Your task to perform on an android device: open app "Google Docs" (install if not already installed) Image 0: 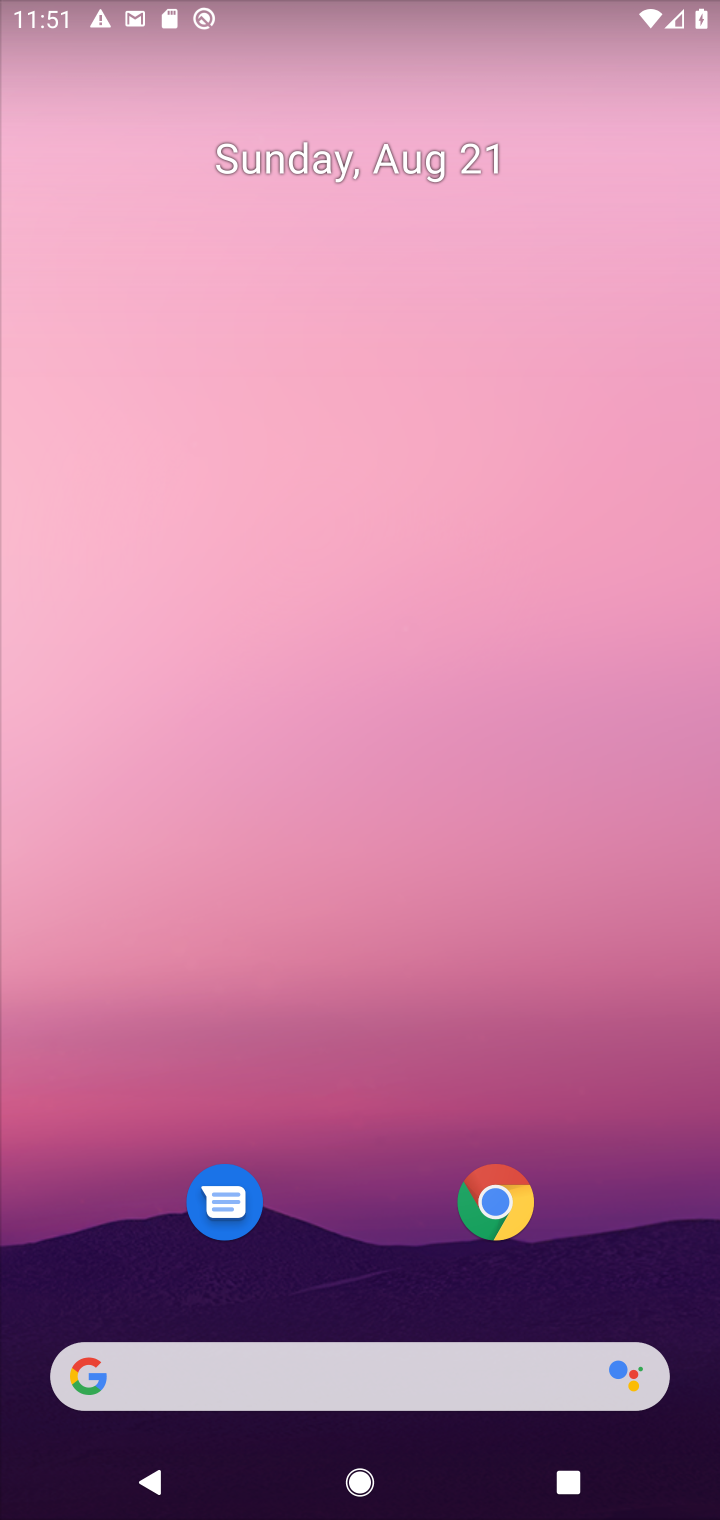
Step 0: drag from (403, 1316) to (364, 78)
Your task to perform on an android device: open app "Google Docs" (install if not already installed) Image 1: 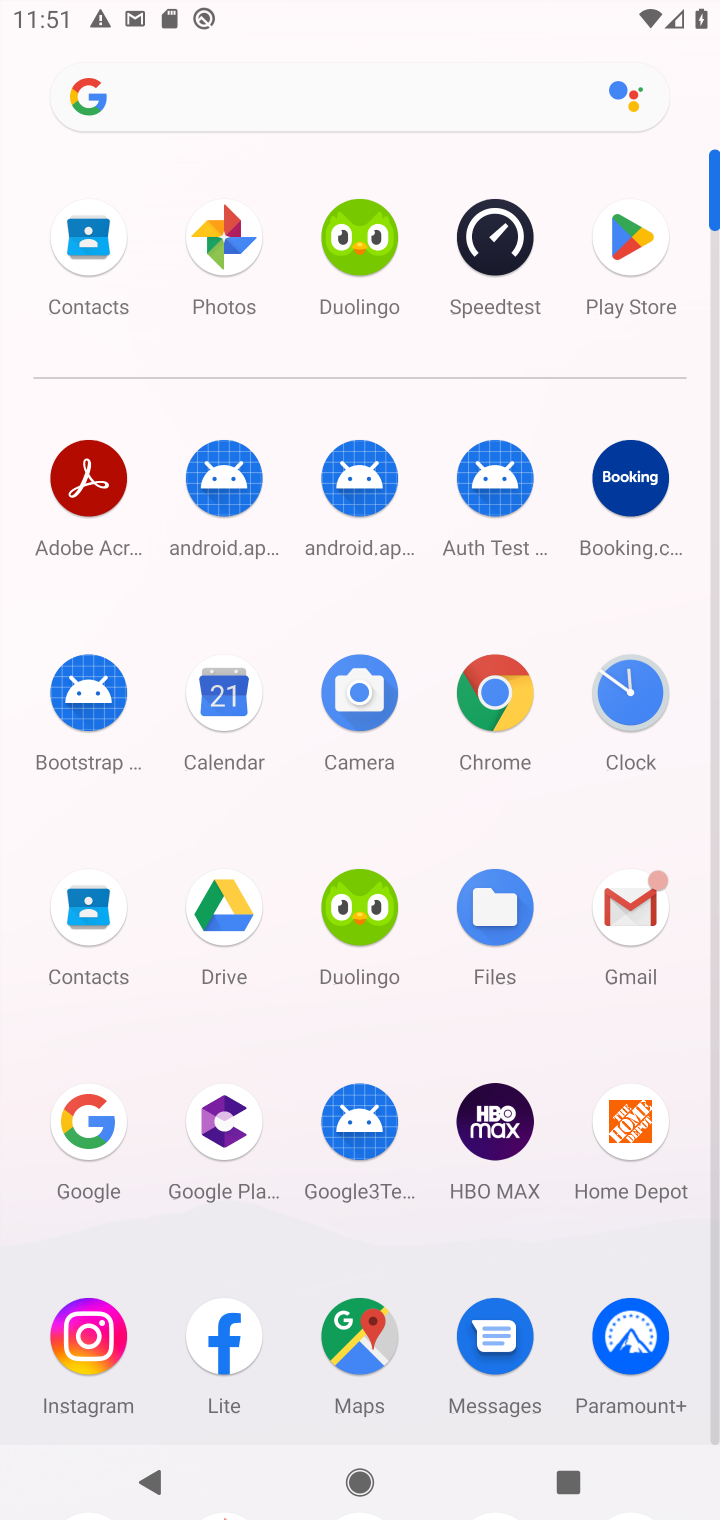
Step 1: click (629, 237)
Your task to perform on an android device: open app "Google Docs" (install if not already installed) Image 2: 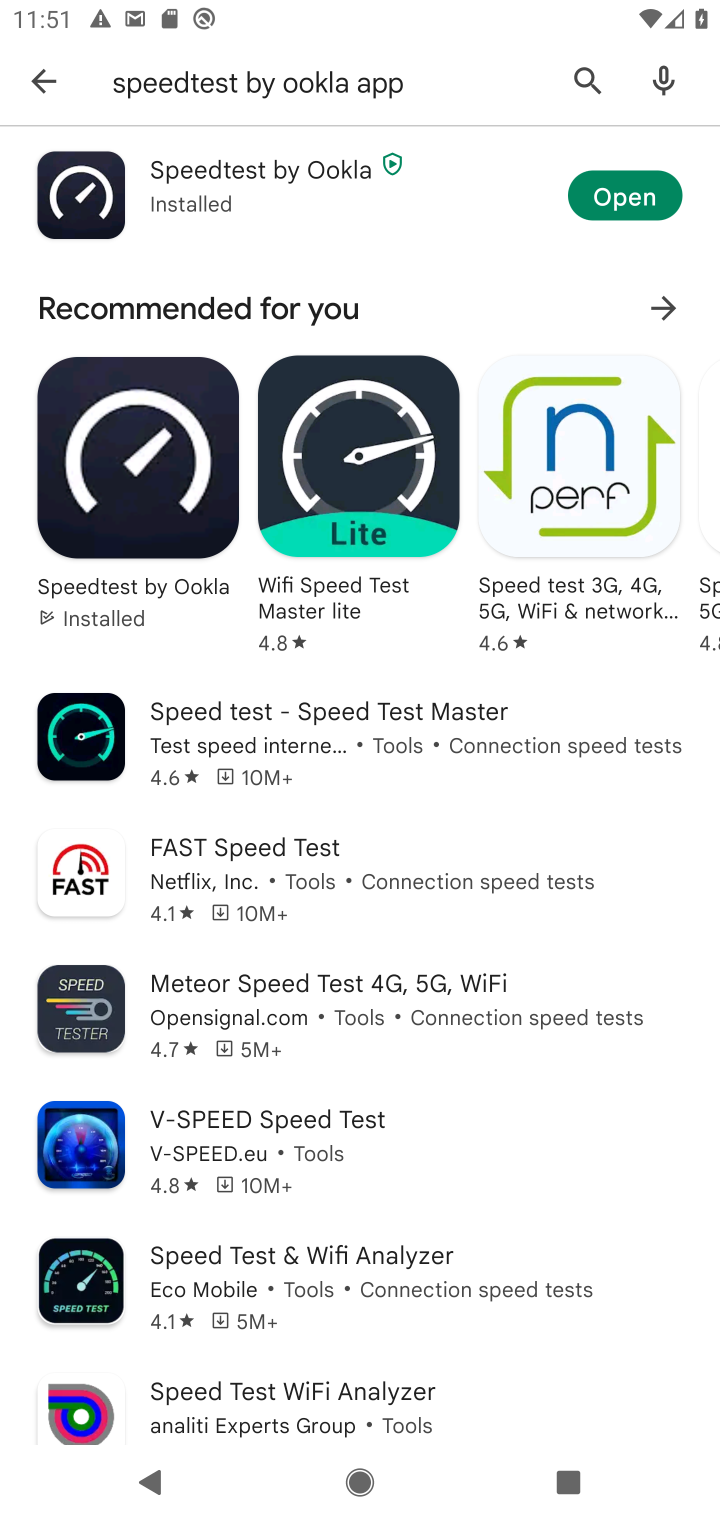
Step 2: click (590, 72)
Your task to perform on an android device: open app "Google Docs" (install if not already installed) Image 3: 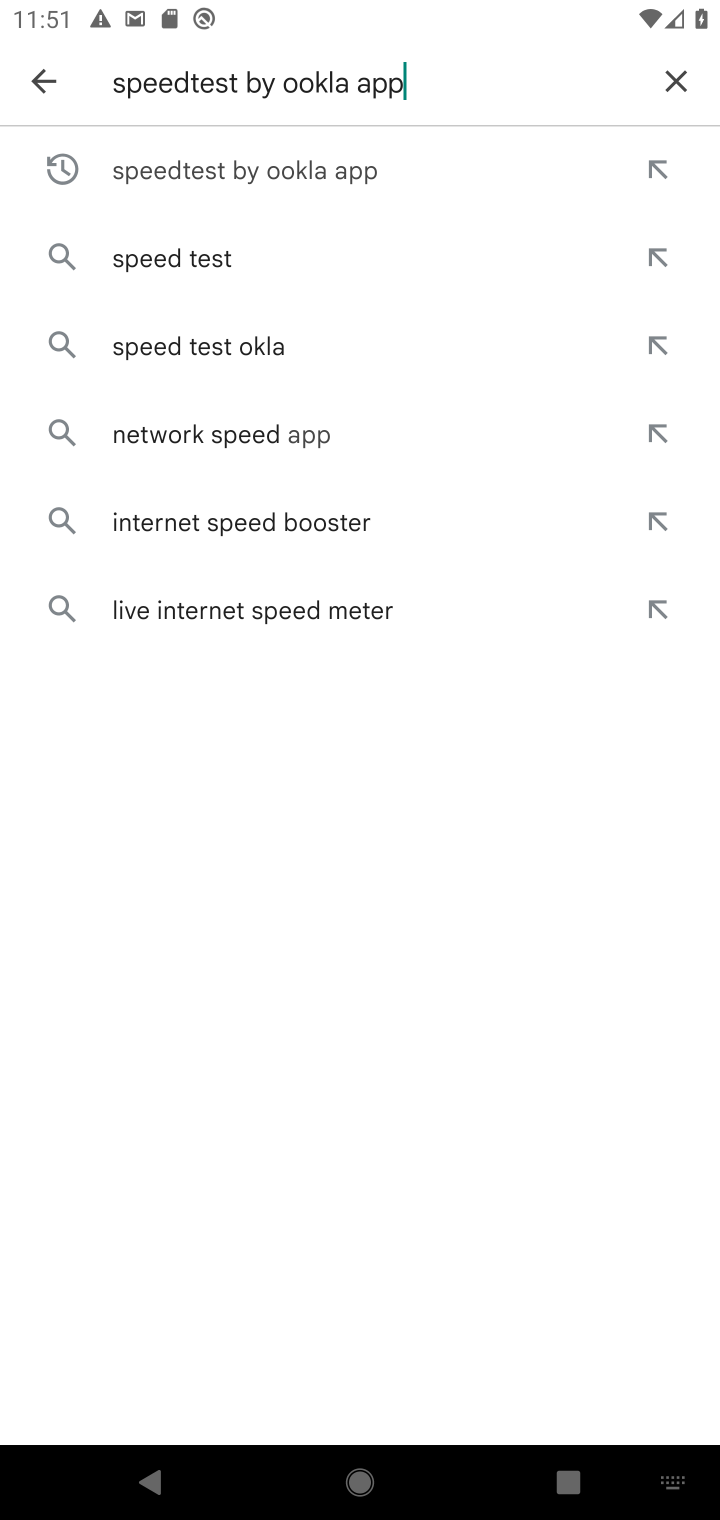
Step 3: click (678, 74)
Your task to perform on an android device: open app "Google Docs" (install if not already installed) Image 4: 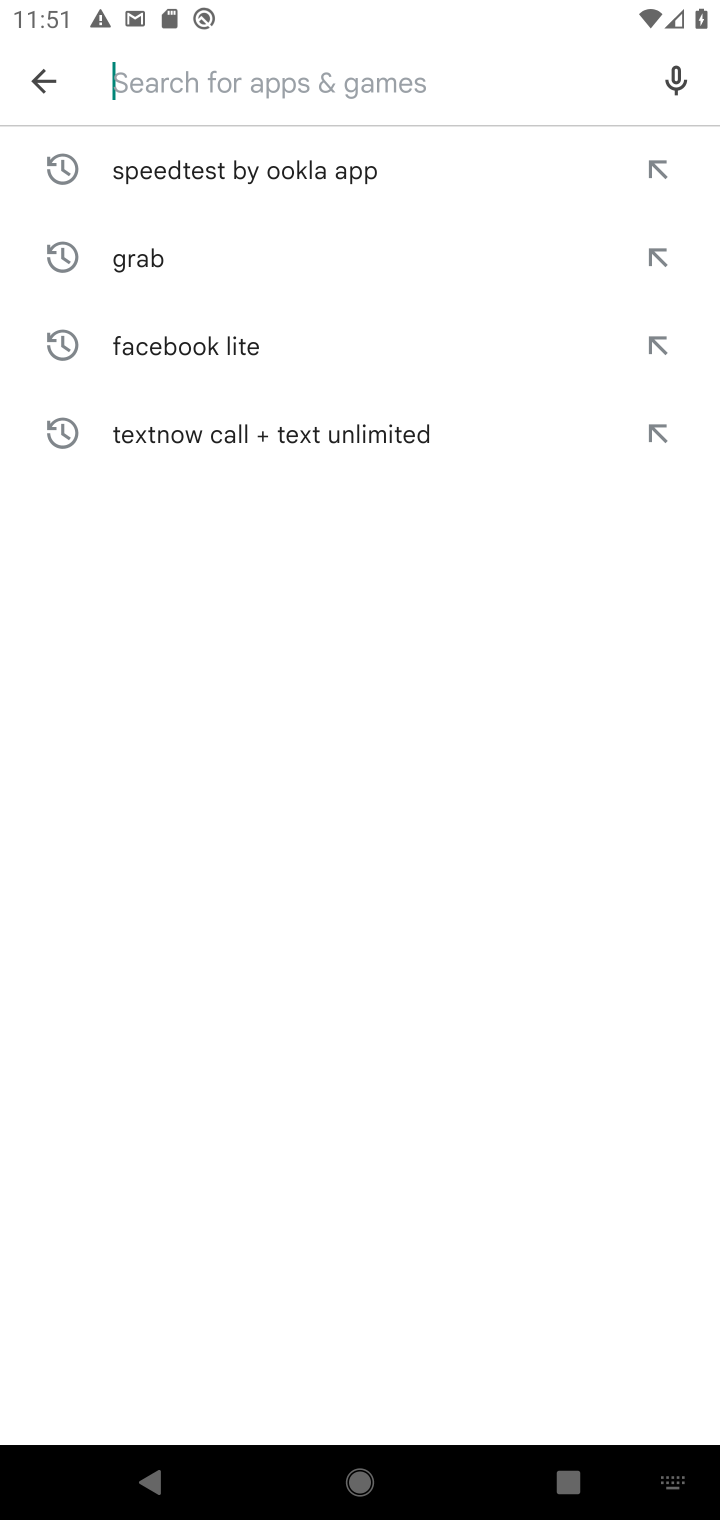
Step 4: type "Google Docs"
Your task to perform on an android device: open app "Google Docs" (install if not already installed) Image 5: 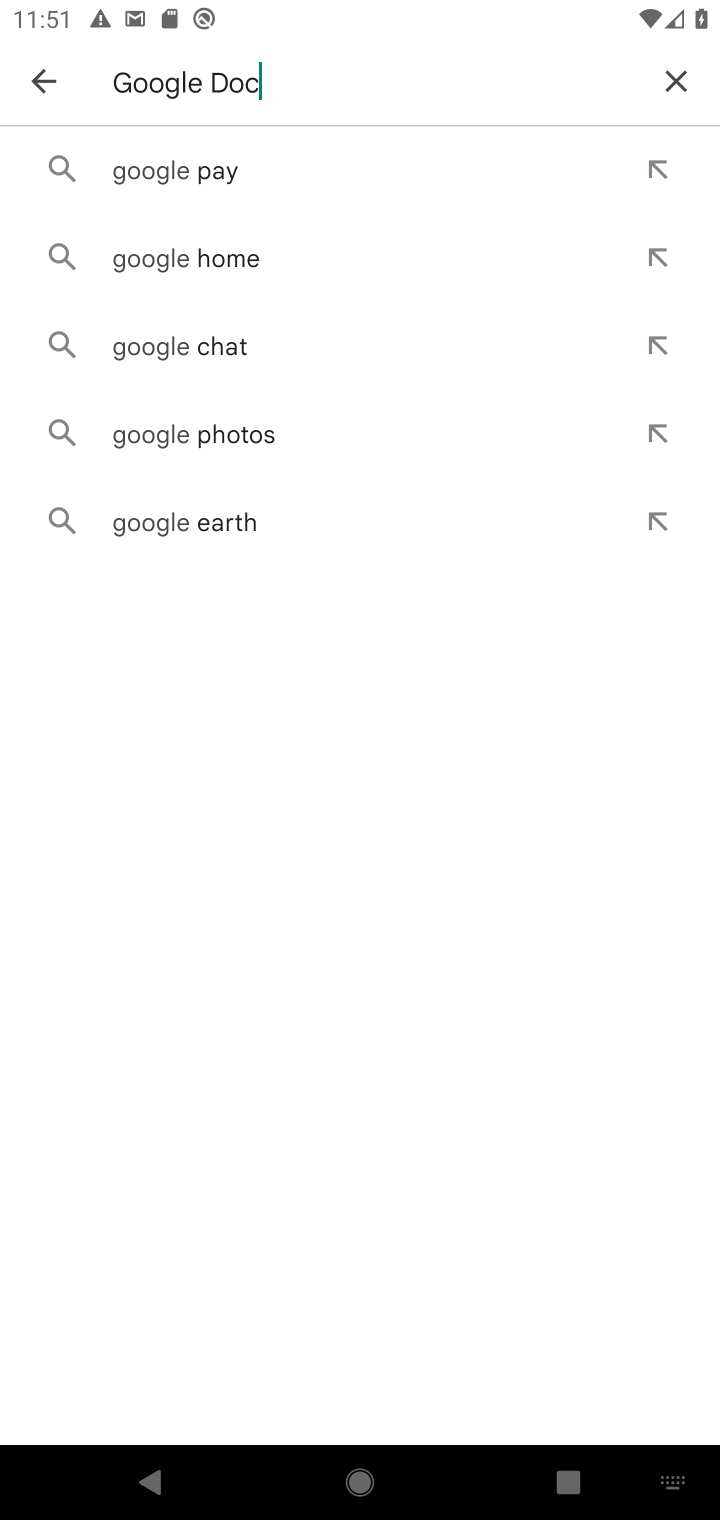
Step 5: type ""
Your task to perform on an android device: open app "Google Docs" (install if not already installed) Image 6: 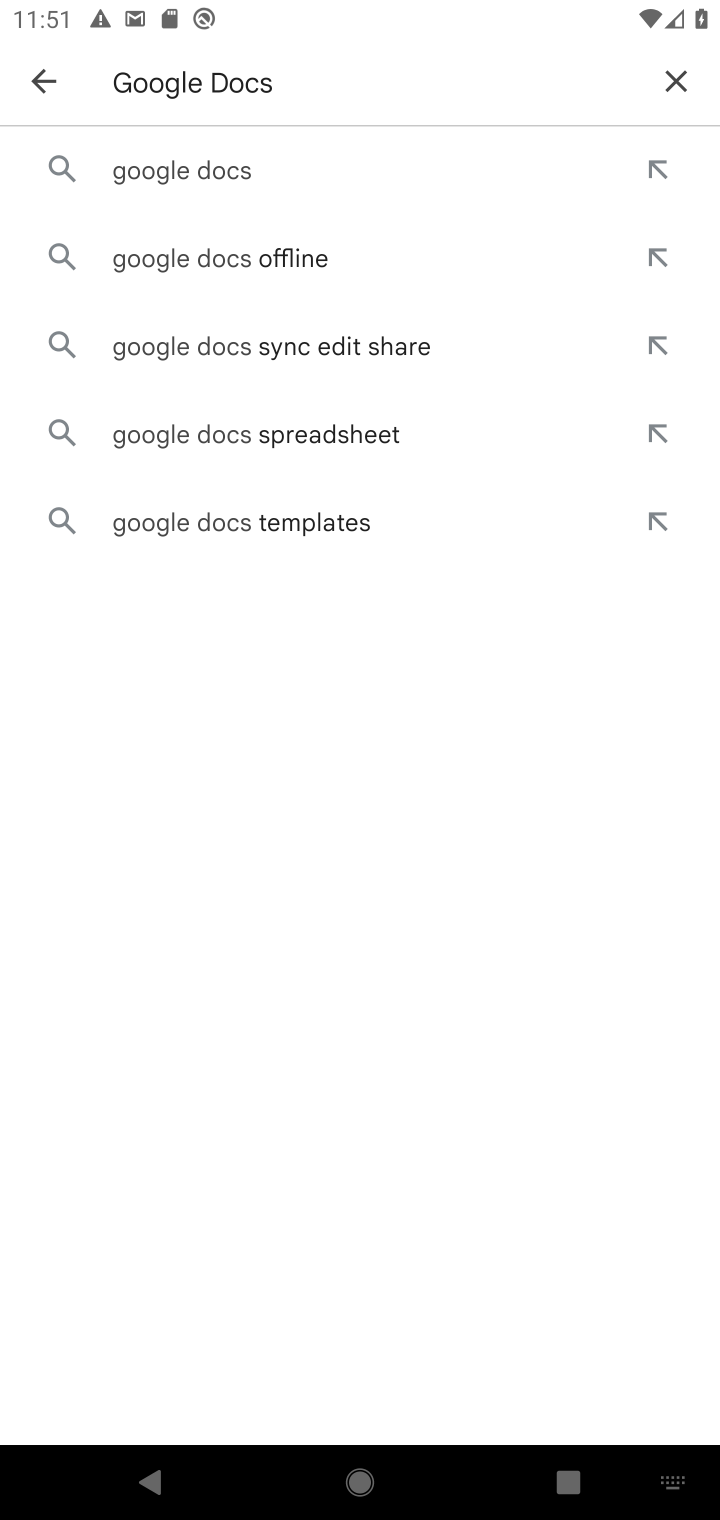
Step 6: click (227, 169)
Your task to perform on an android device: open app "Google Docs" (install if not already installed) Image 7: 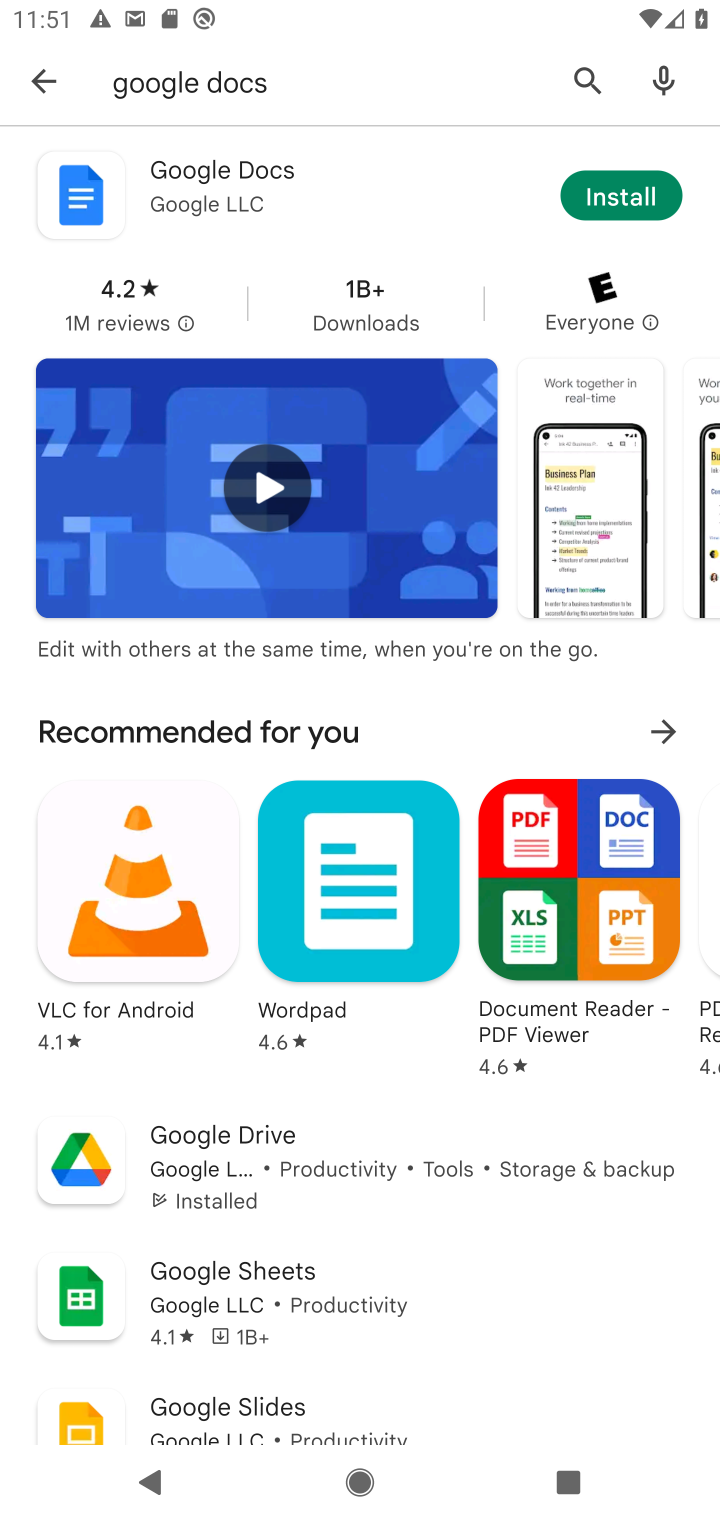
Step 7: click (612, 208)
Your task to perform on an android device: open app "Google Docs" (install if not already installed) Image 8: 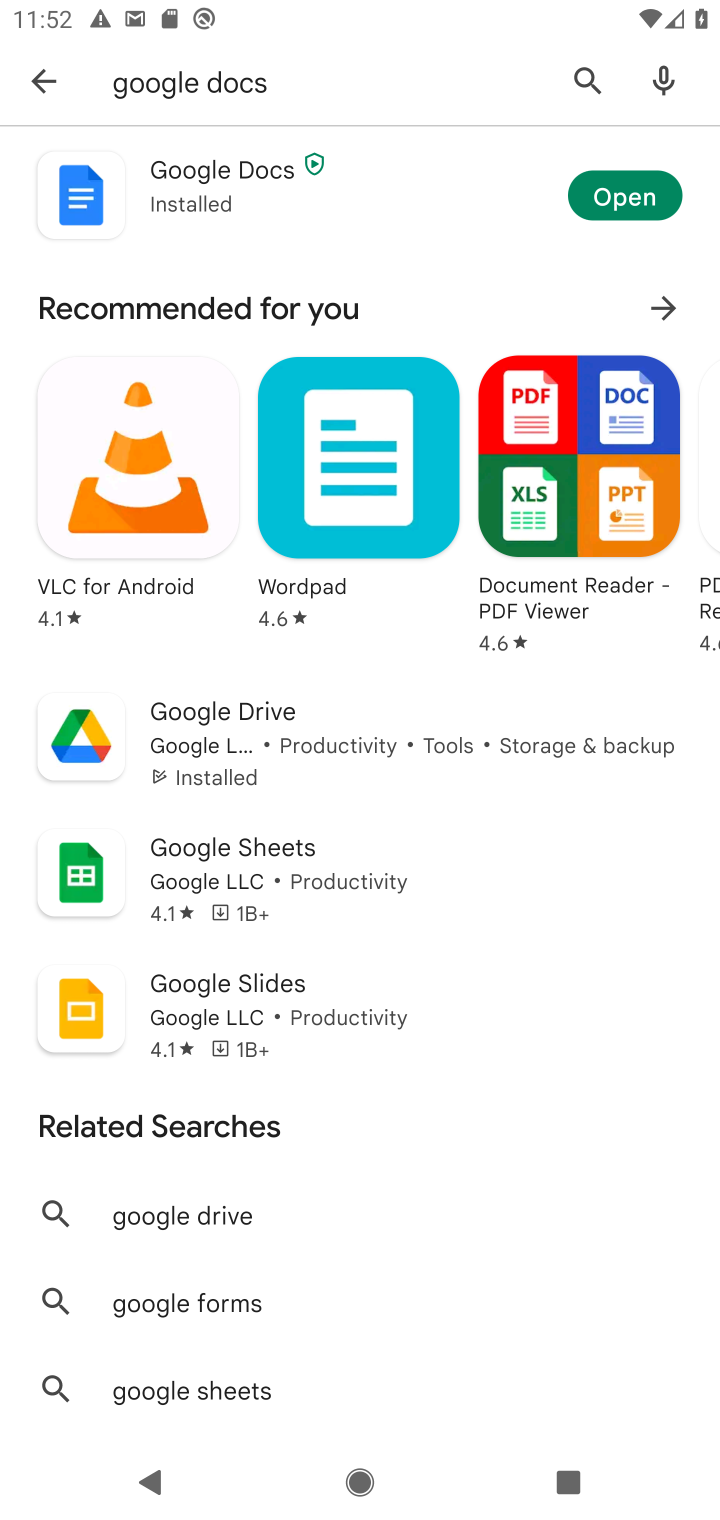
Step 8: click (635, 189)
Your task to perform on an android device: open app "Google Docs" (install if not already installed) Image 9: 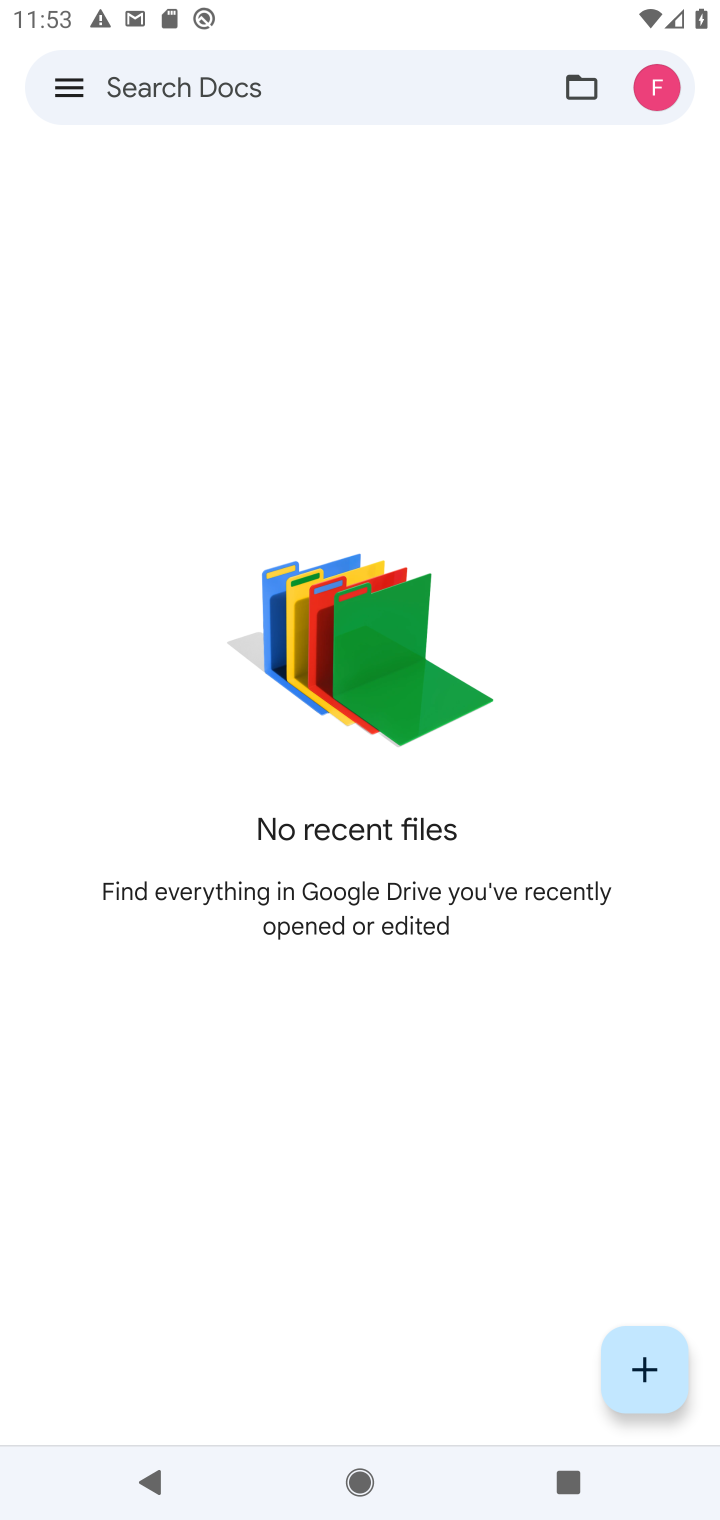
Step 9: press home button
Your task to perform on an android device: open app "Google Docs" (install if not already installed) Image 10: 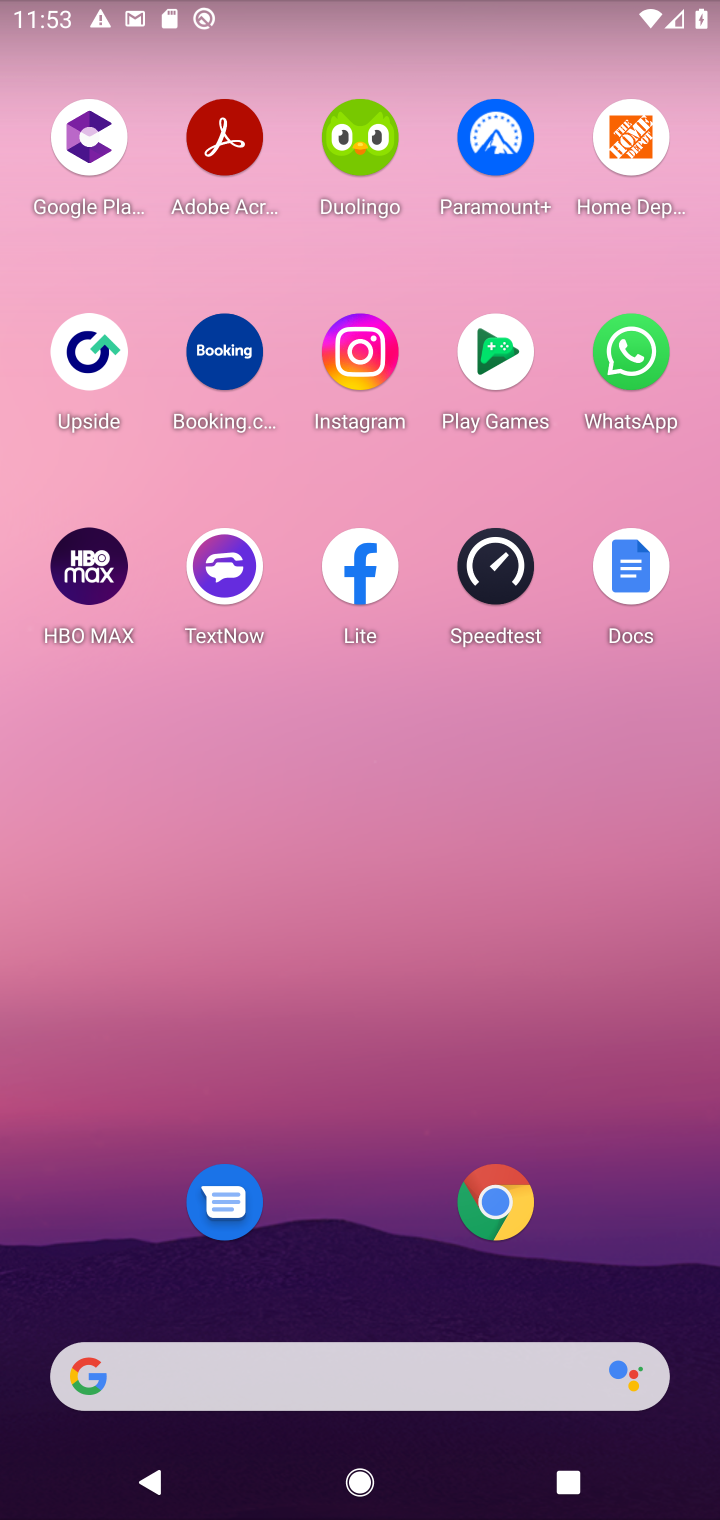
Step 10: drag from (367, 779) to (367, 122)
Your task to perform on an android device: open app "Google Docs" (install if not already installed) Image 11: 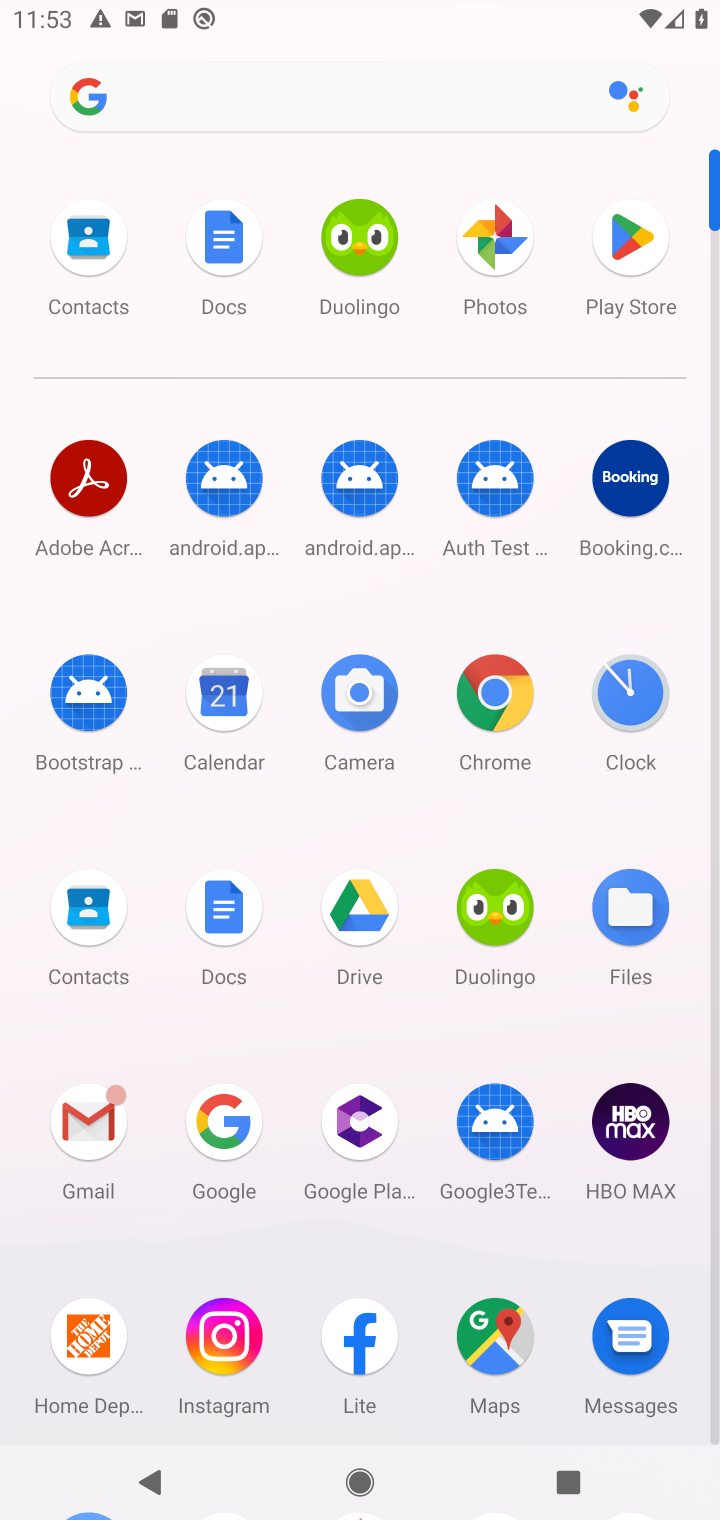
Step 11: click (617, 236)
Your task to perform on an android device: open app "Google Docs" (install if not already installed) Image 12: 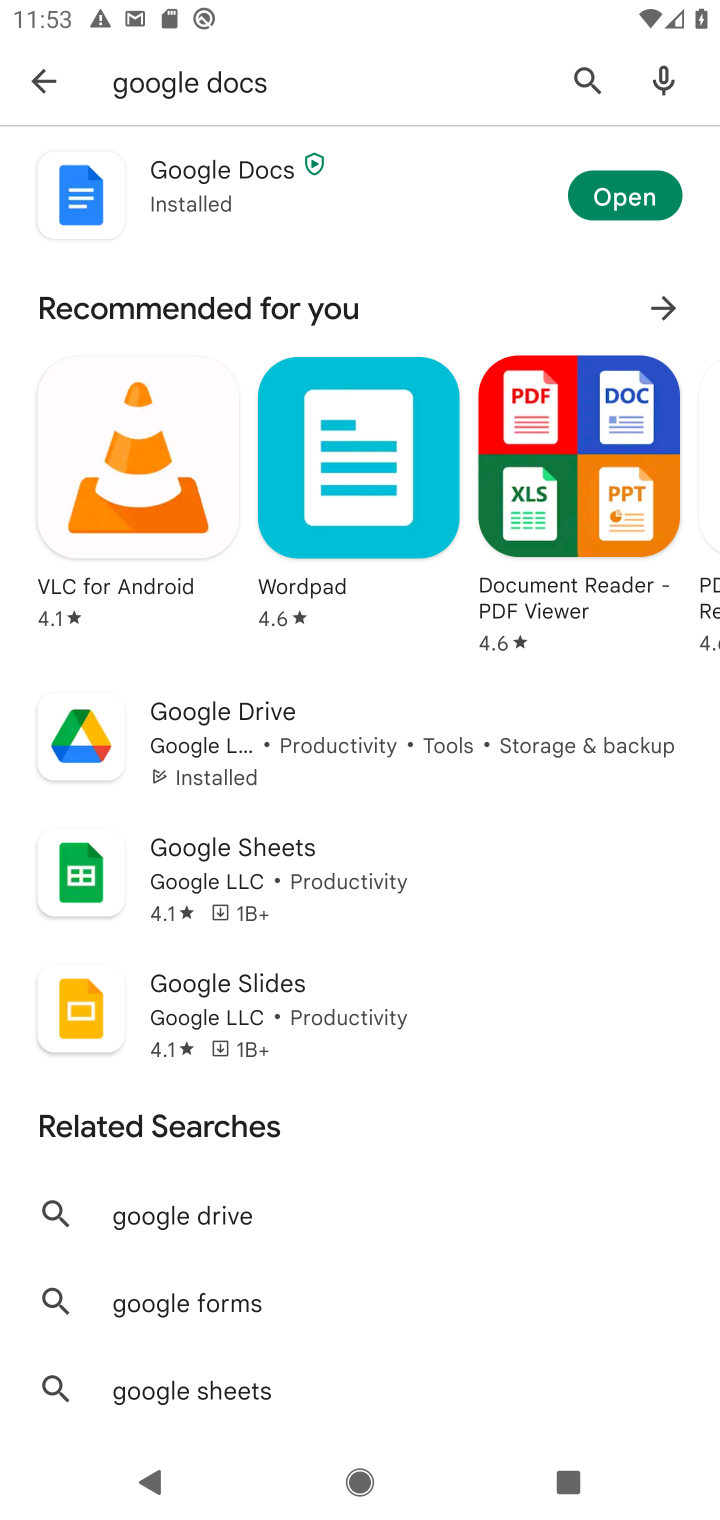
Step 12: click (623, 189)
Your task to perform on an android device: open app "Google Docs" (install if not already installed) Image 13: 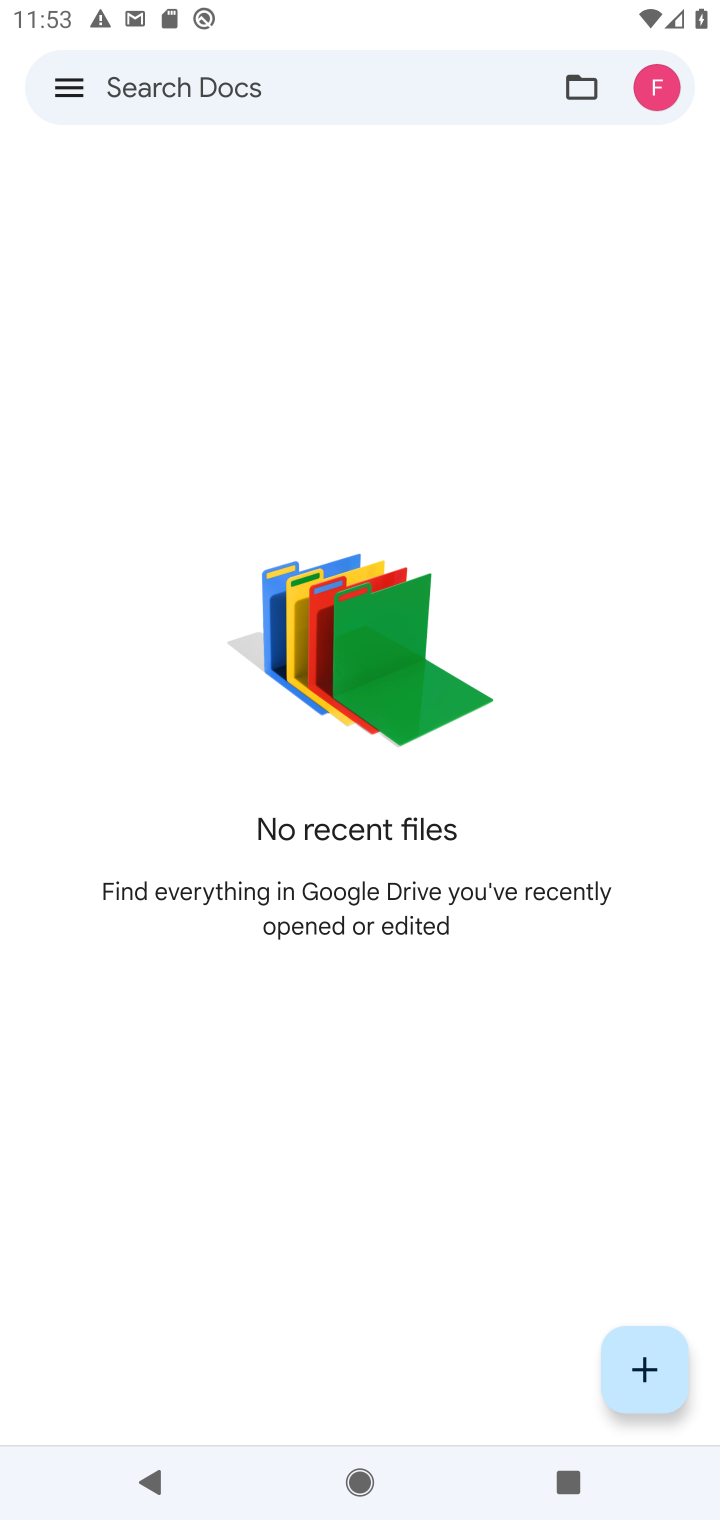
Step 13: task complete